Your task to perform on an android device: open wifi settings Image 0: 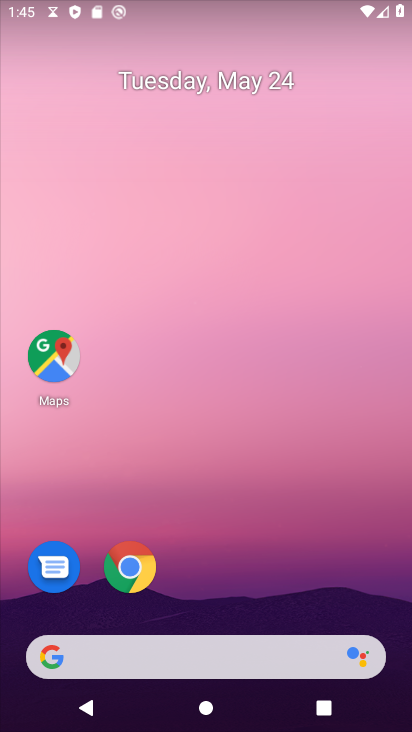
Step 0: drag from (239, 609) to (339, 0)
Your task to perform on an android device: open wifi settings Image 1: 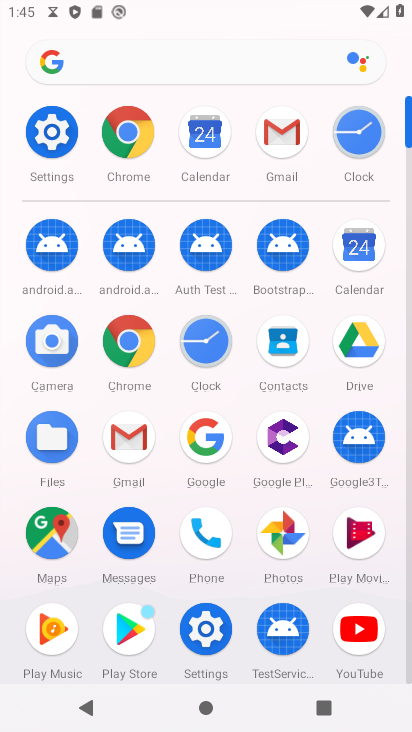
Step 1: click (215, 630)
Your task to perform on an android device: open wifi settings Image 2: 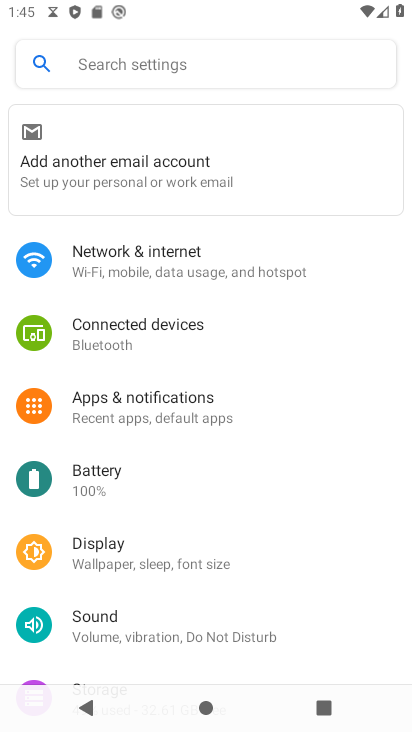
Step 2: click (196, 259)
Your task to perform on an android device: open wifi settings Image 3: 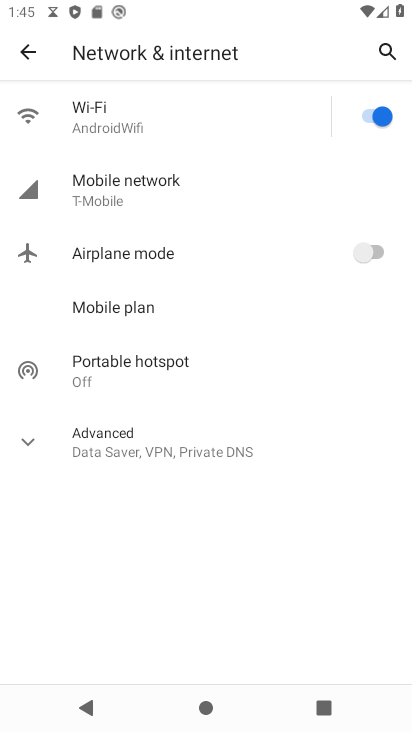
Step 3: click (157, 98)
Your task to perform on an android device: open wifi settings Image 4: 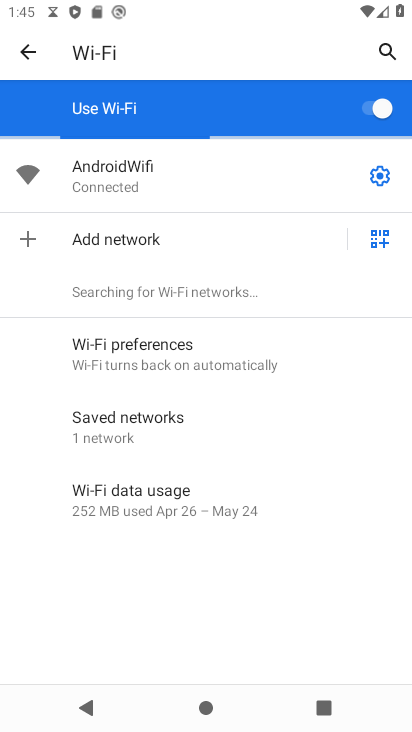
Step 4: task complete